Your task to perform on an android device: Is it going to rain today? Image 0: 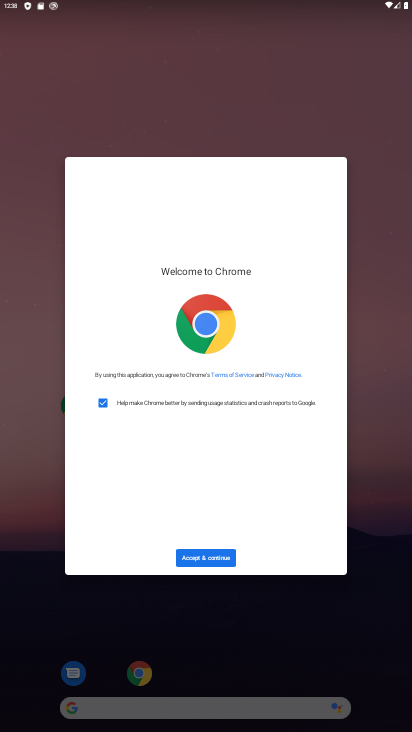
Step 0: press home button
Your task to perform on an android device: Is it going to rain today? Image 1: 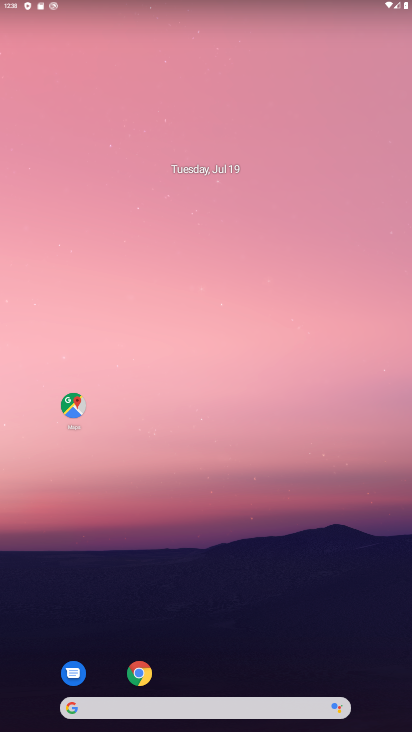
Step 1: drag from (192, 679) to (195, 262)
Your task to perform on an android device: Is it going to rain today? Image 2: 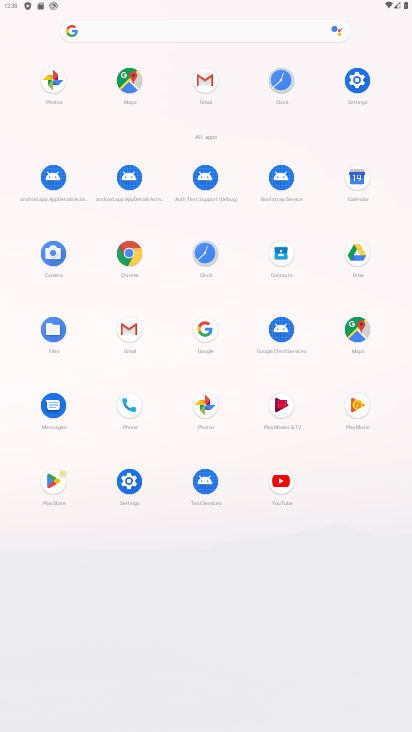
Step 2: click (201, 336)
Your task to perform on an android device: Is it going to rain today? Image 3: 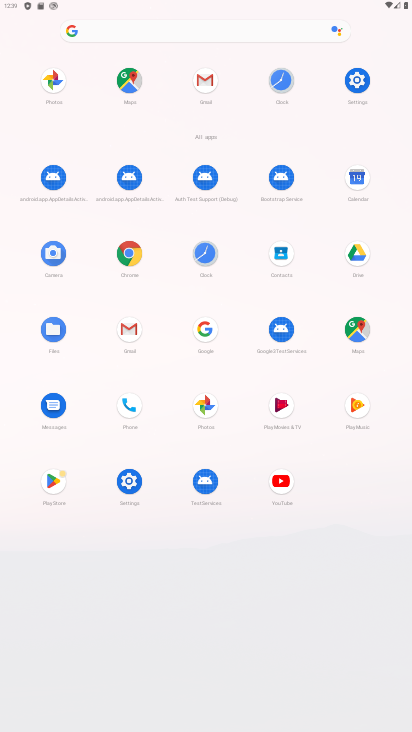
Step 3: click (203, 327)
Your task to perform on an android device: Is it going to rain today? Image 4: 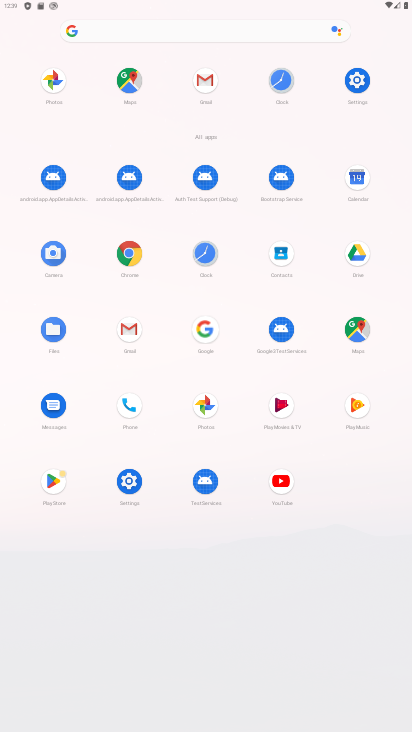
Step 4: click (200, 339)
Your task to perform on an android device: Is it going to rain today? Image 5: 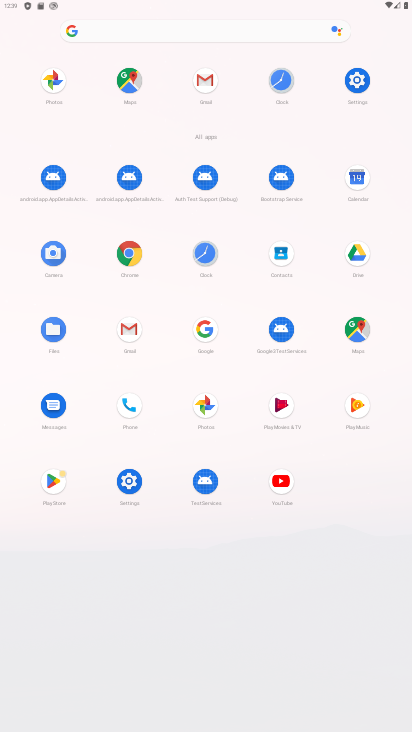
Step 5: click (212, 339)
Your task to perform on an android device: Is it going to rain today? Image 6: 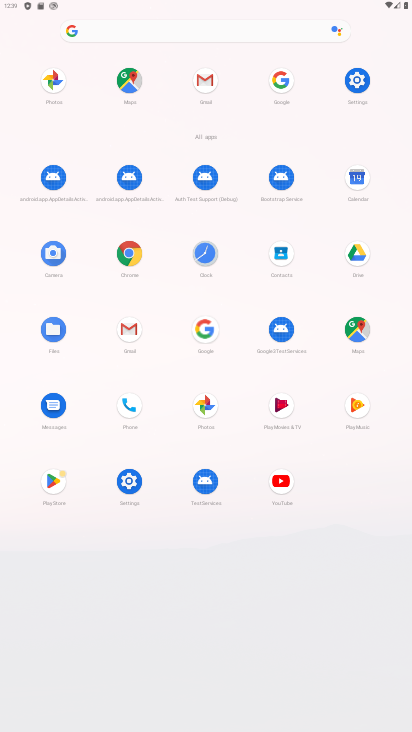
Step 6: click (205, 318)
Your task to perform on an android device: Is it going to rain today? Image 7: 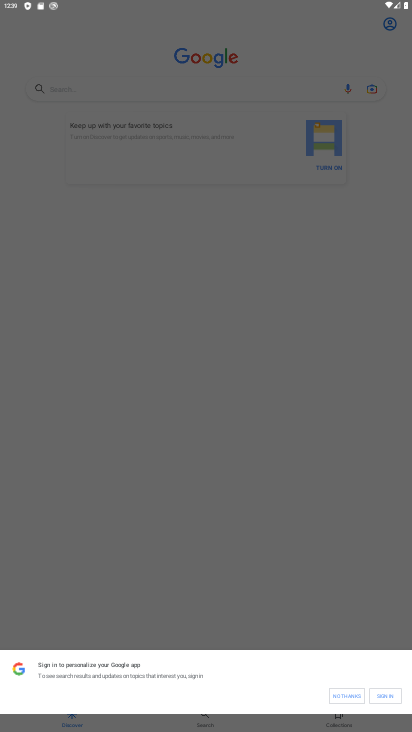
Step 7: task complete